Your task to perform on an android device: turn off location Image 0: 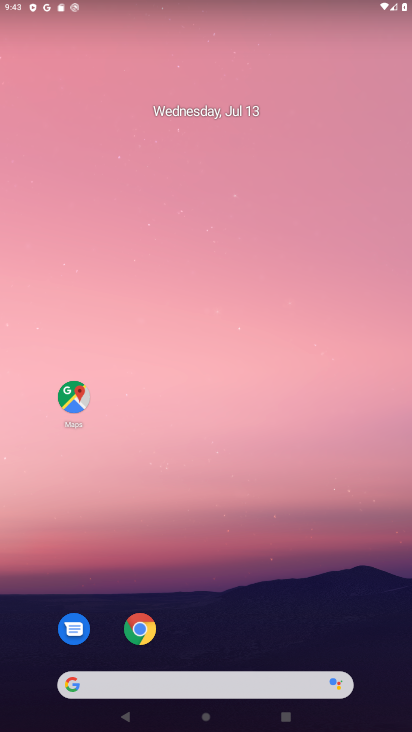
Step 0: drag from (241, 648) to (262, 142)
Your task to perform on an android device: turn off location Image 1: 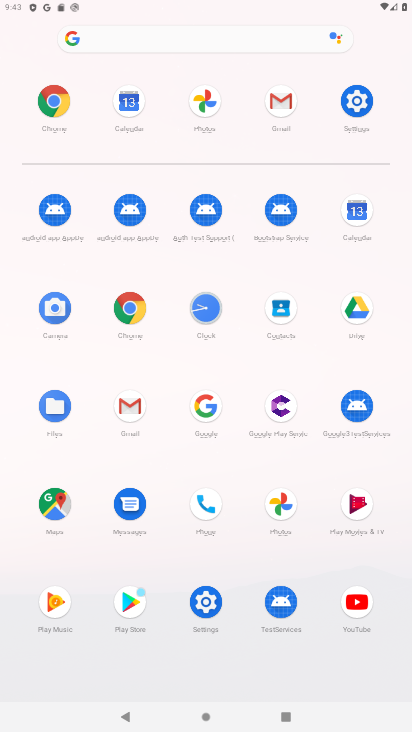
Step 1: click (348, 128)
Your task to perform on an android device: turn off location Image 2: 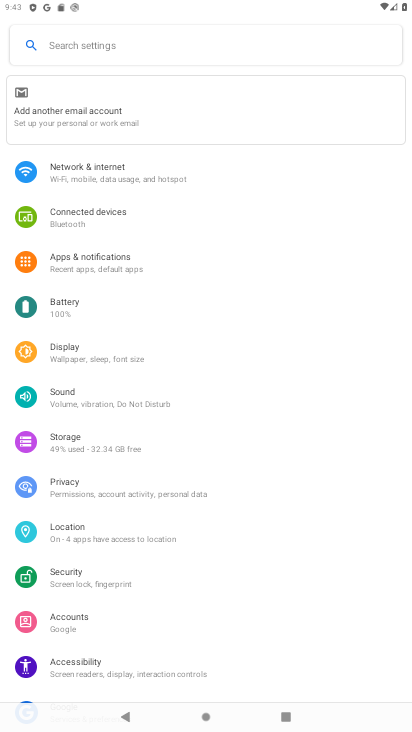
Step 2: click (100, 533)
Your task to perform on an android device: turn off location Image 3: 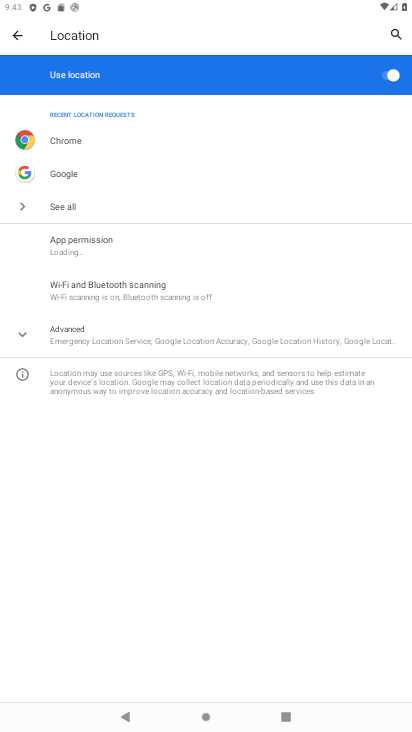
Step 3: task complete